Your task to perform on an android device: open a bookmark in the chrome app Image 0: 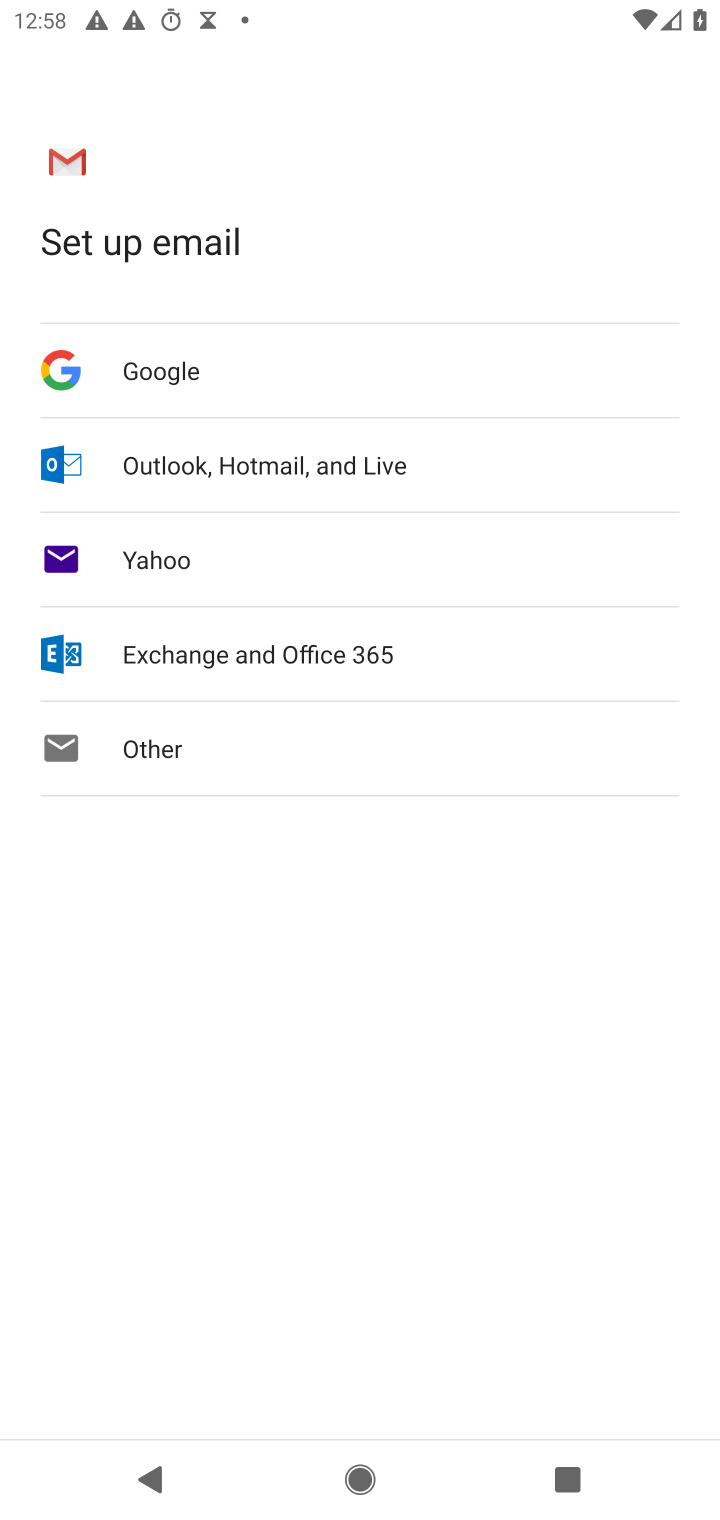
Step 0: press home button
Your task to perform on an android device: open a bookmark in the chrome app Image 1: 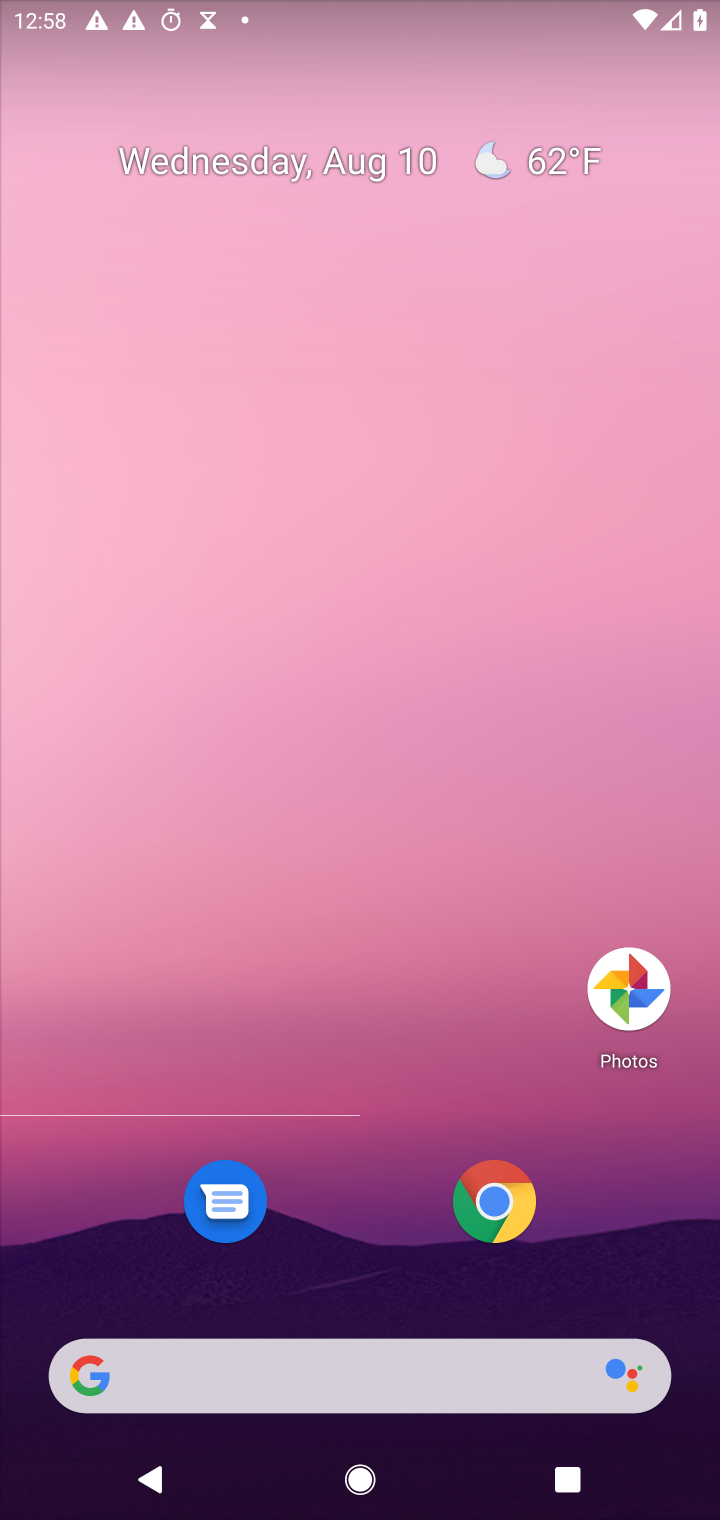
Step 1: click (472, 1192)
Your task to perform on an android device: open a bookmark in the chrome app Image 2: 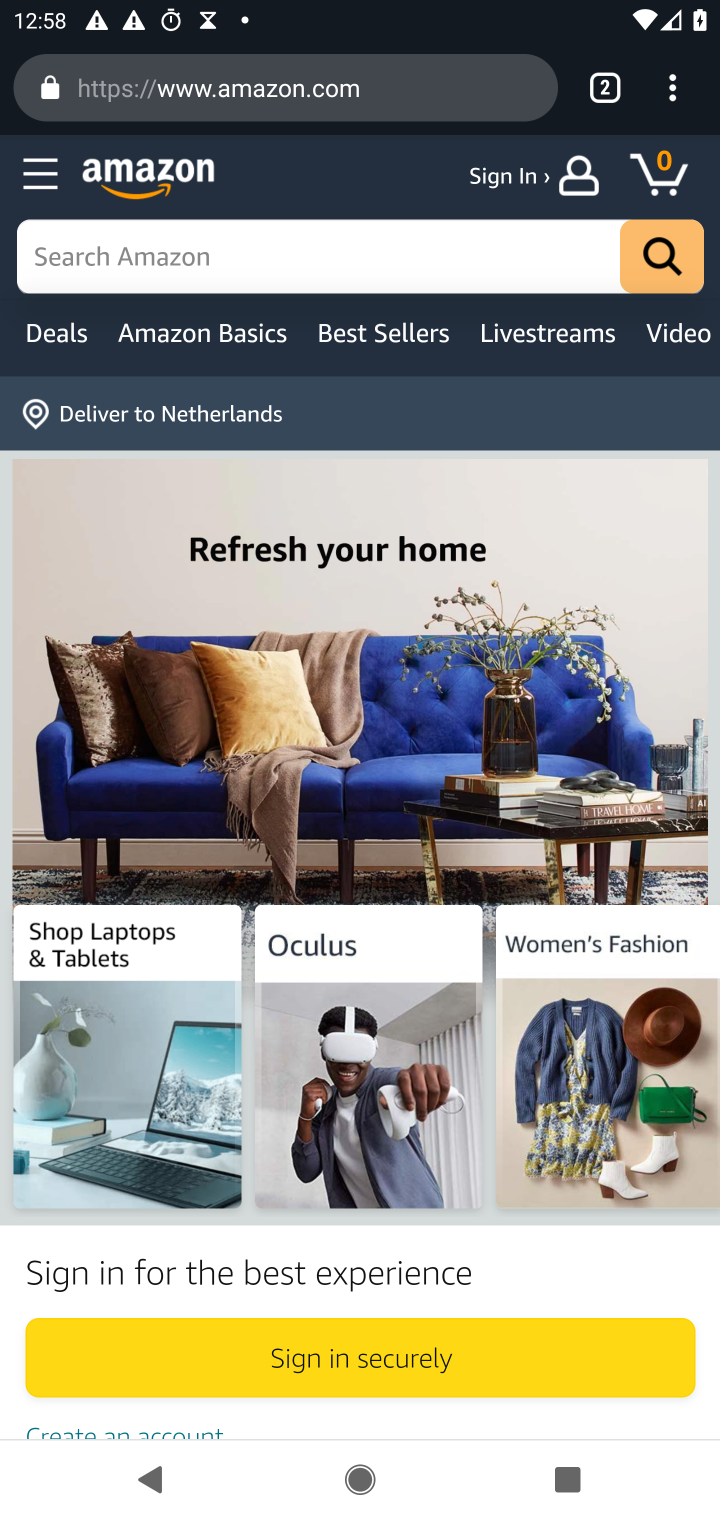
Step 2: task complete